Your task to perform on an android device: delete location history Image 0: 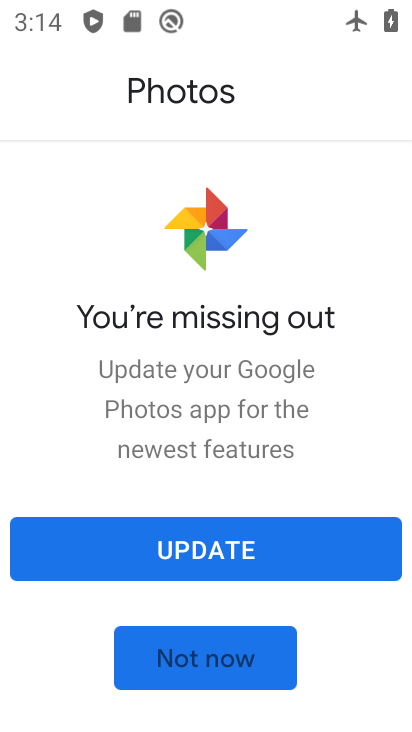
Step 0: press home button
Your task to perform on an android device: delete location history Image 1: 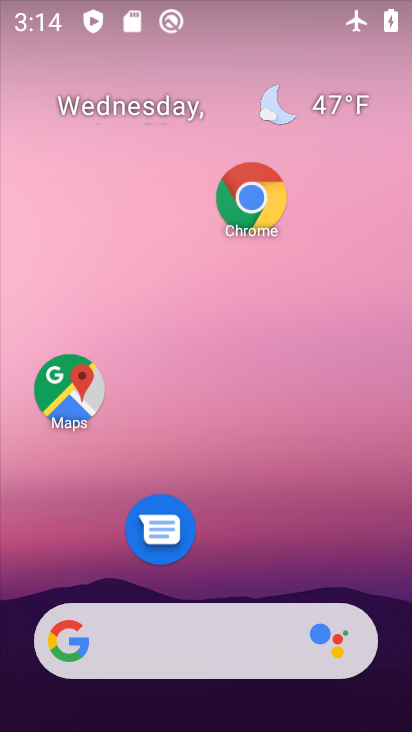
Step 1: drag from (254, 453) to (210, 0)
Your task to perform on an android device: delete location history Image 2: 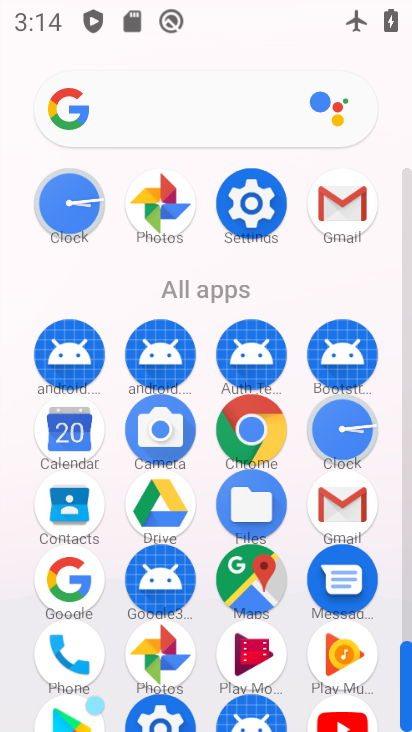
Step 2: click (257, 221)
Your task to perform on an android device: delete location history Image 3: 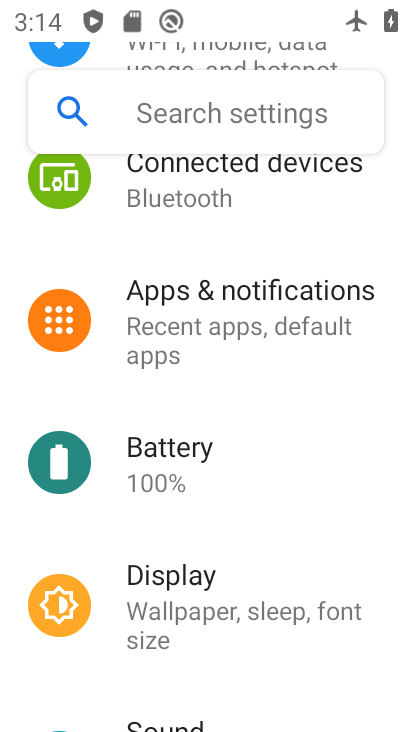
Step 3: drag from (250, 602) to (243, 164)
Your task to perform on an android device: delete location history Image 4: 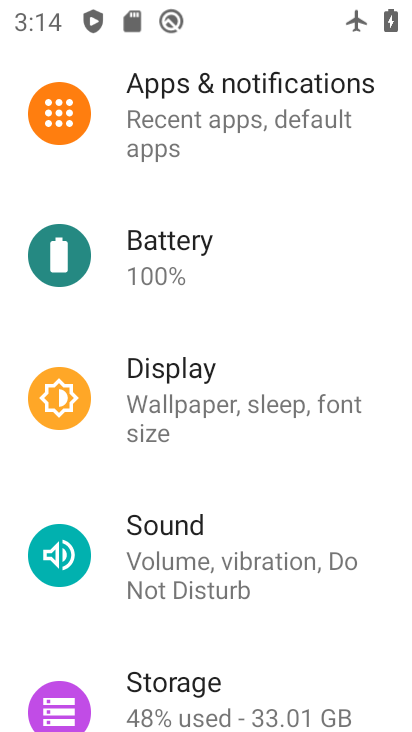
Step 4: drag from (258, 630) to (245, 176)
Your task to perform on an android device: delete location history Image 5: 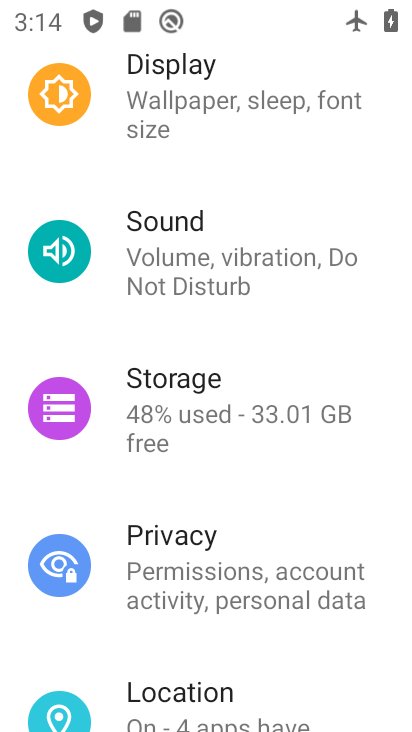
Step 5: click (251, 708)
Your task to perform on an android device: delete location history Image 6: 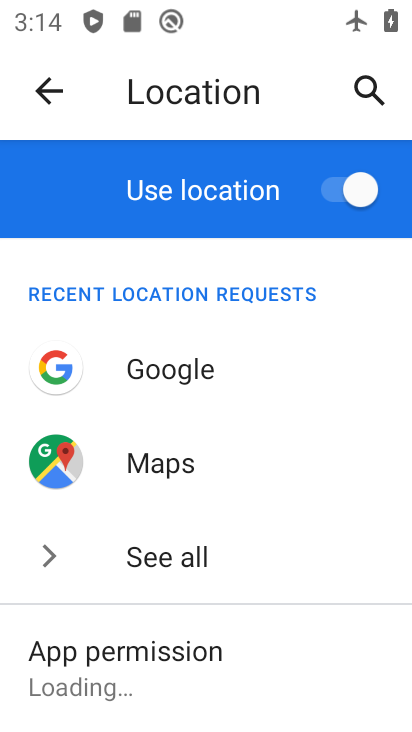
Step 6: drag from (275, 593) to (271, 288)
Your task to perform on an android device: delete location history Image 7: 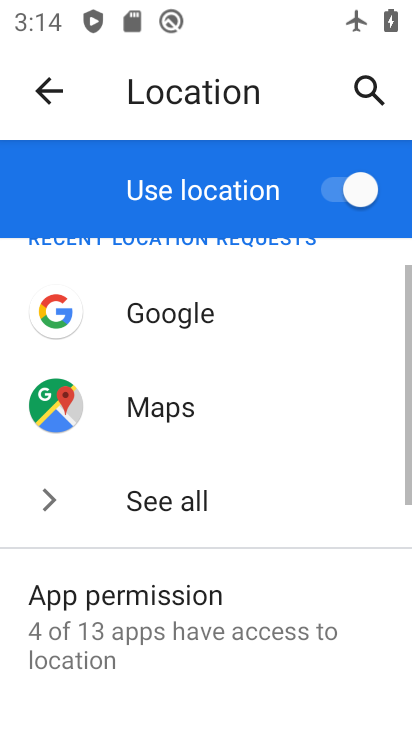
Step 7: drag from (238, 653) to (268, 216)
Your task to perform on an android device: delete location history Image 8: 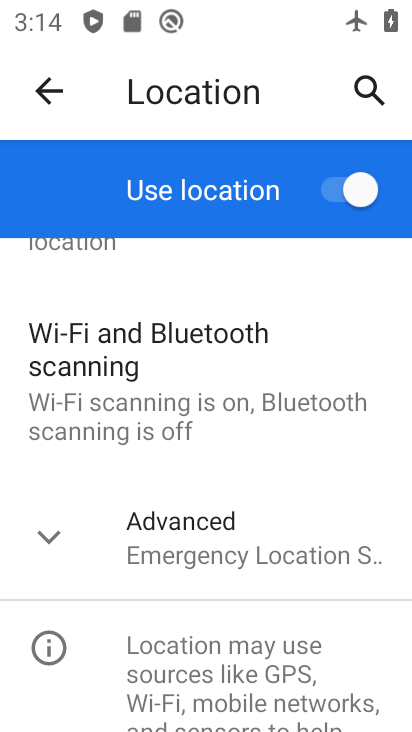
Step 8: click (217, 545)
Your task to perform on an android device: delete location history Image 9: 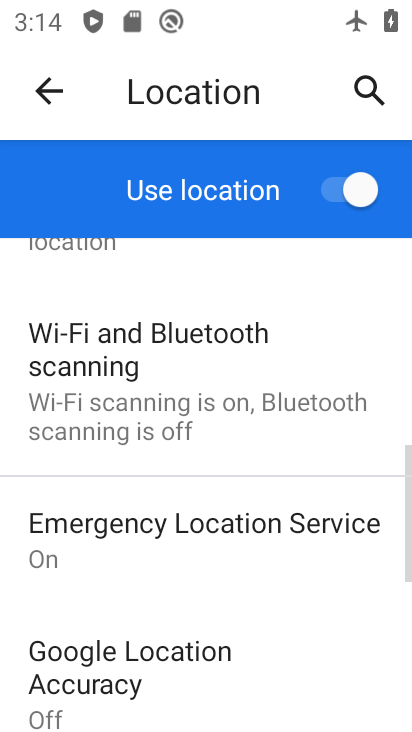
Step 9: drag from (241, 654) to (264, 299)
Your task to perform on an android device: delete location history Image 10: 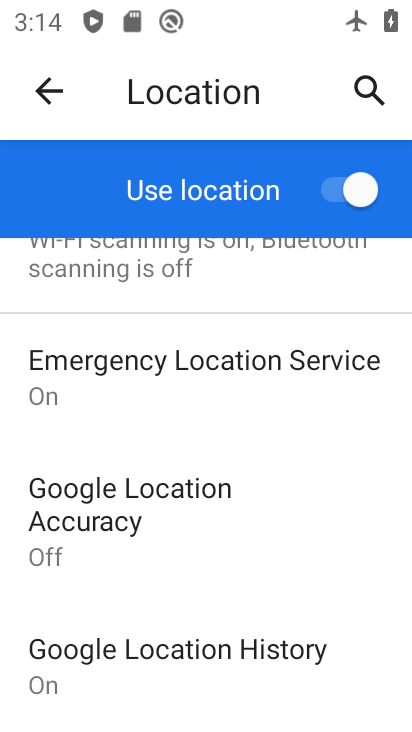
Step 10: click (215, 637)
Your task to perform on an android device: delete location history Image 11: 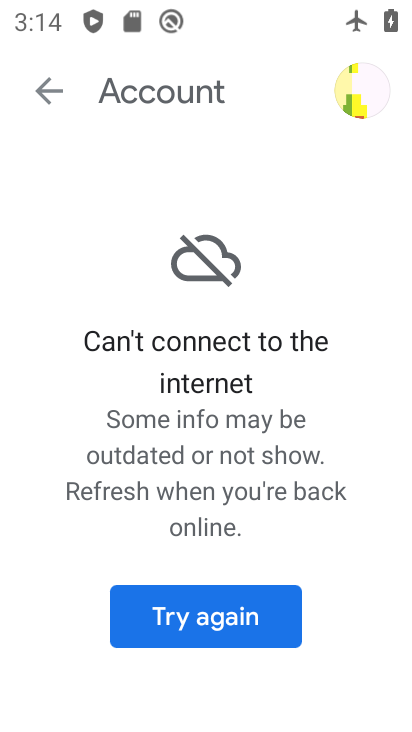
Step 11: task complete